Your task to perform on an android device: Open Youtube and go to the subscriptions tab Image 0: 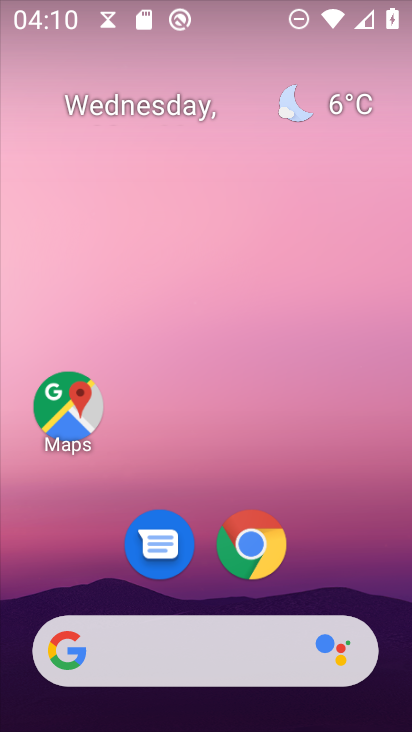
Step 0: drag from (294, 596) to (295, 14)
Your task to perform on an android device: Open Youtube and go to the subscriptions tab Image 1: 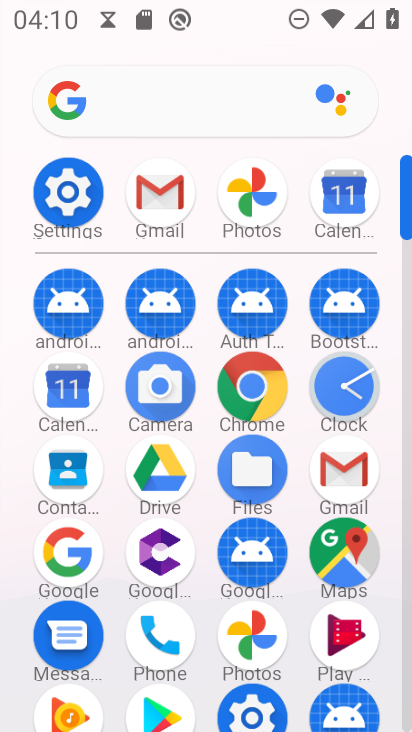
Step 1: drag from (263, 691) to (364, 244)
Your task to perform on an android device: Open Youtube and go to the subscriptions tab Image 2: 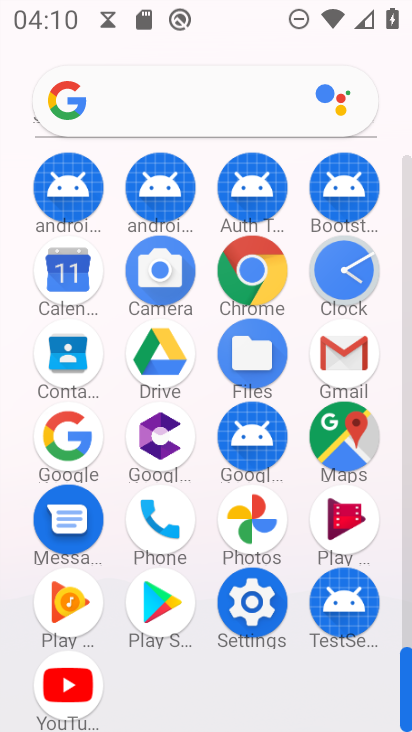
Step 2: click (86, 676)
Your task to perform on an android device: Open Youtube and go to the subscriptions tab Image 3: 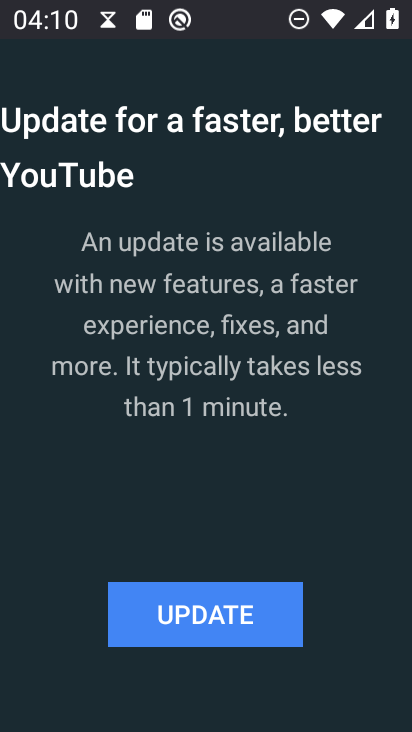
Step 3: click (205, 638)
Your task to perform on an android device: Open Youtube and go to the subscriptions tab Image 4: 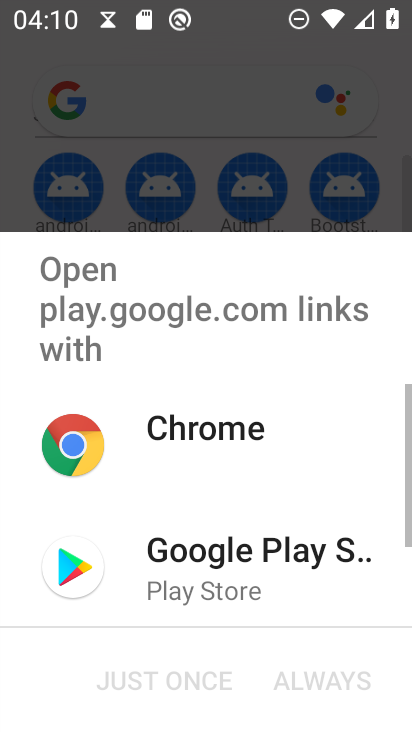
Step 4: click (226, 551)
Your task to perform on an android device: Open Youtube and go to the subscriptions tab Image 5: 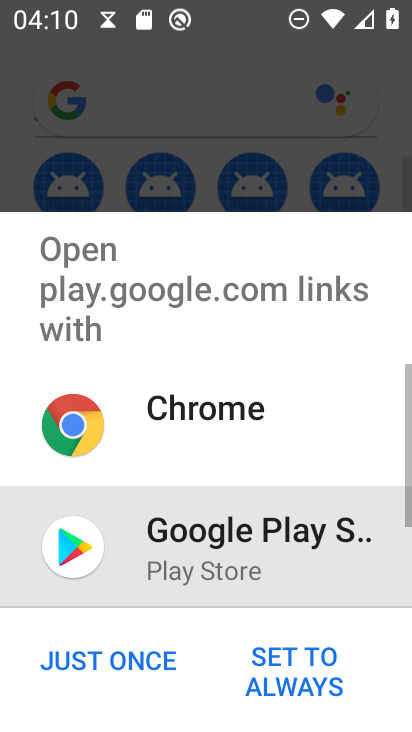
Step 5: click (85, 662)
Your task to perform on an android device: Open Youtube and go to the subscriptions tab Image 6: 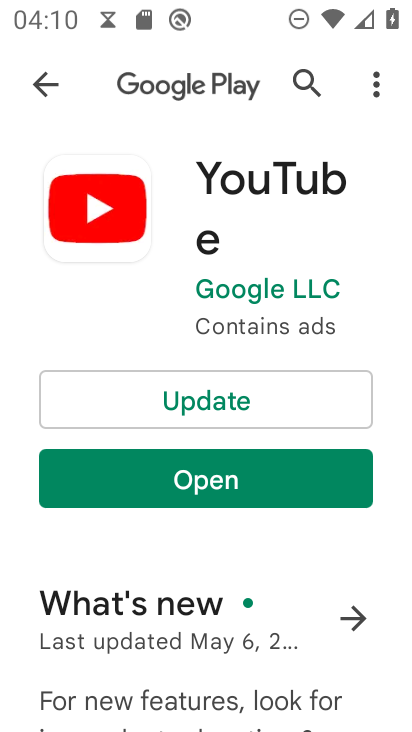
Step 6: click (288, 378)
Your task to perform on an android device: Open Youtube and go to the subscriptions tab Image 7: 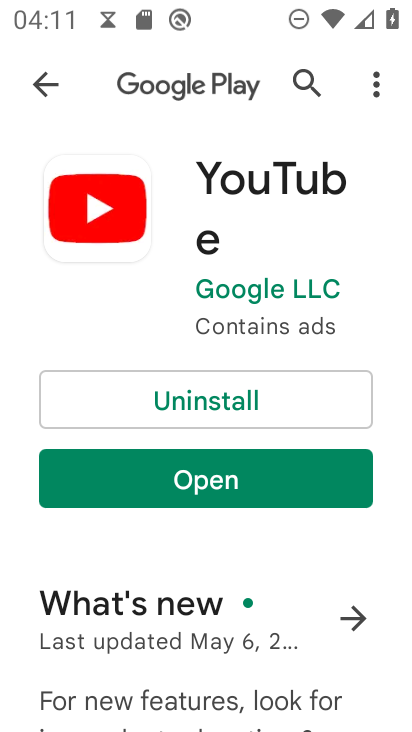
Step 7: click (275, 483)
Your task to perform on an android device: Open Youtube and go to the subscriptions tab Image 8: 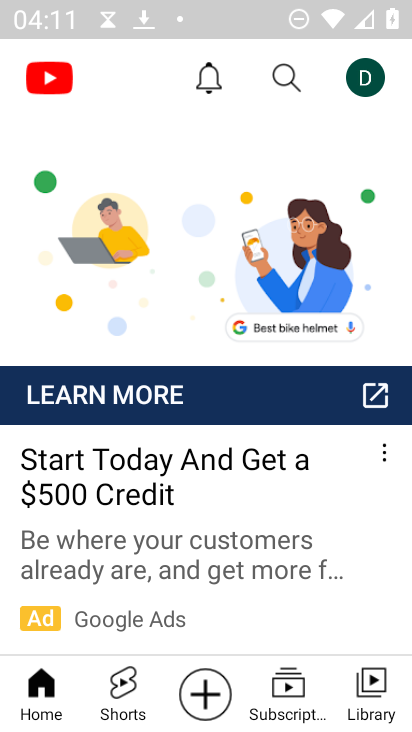
Step 8: click (301, 681)
Your task to perform on an android device: Open Youtube and go to the subscriptions tab Image 9: 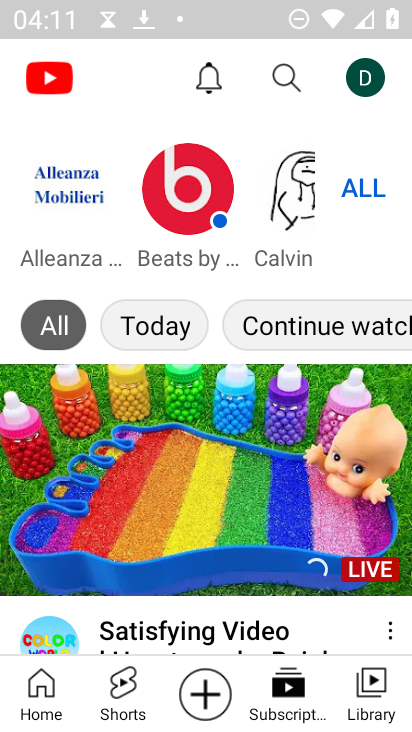
Step 9: task complete